Your task to perform on an android device: visit the assistant section in the google photos Image 0: 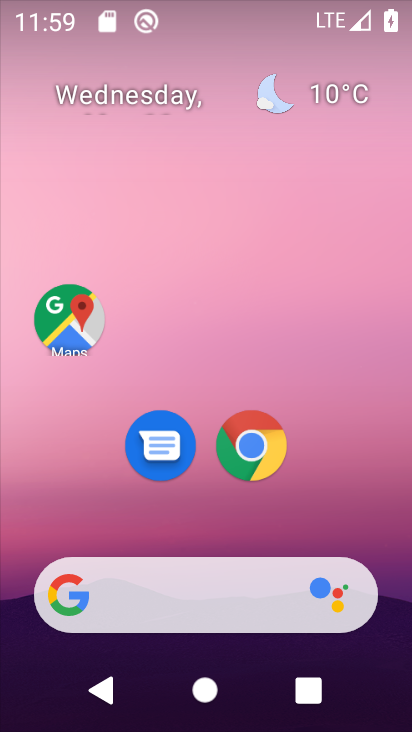
Step 0: drag from (264, 522) to (282, 54)
Your task to perform on an android device: visit the assistant section in the google photos Image 1: 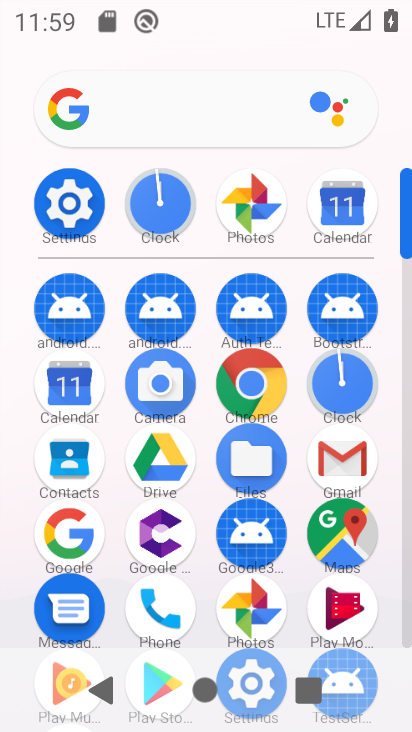
Step 1: click (240, 622)
Your task to perform on an android device: visit the assistant section in the google photos Image 2: 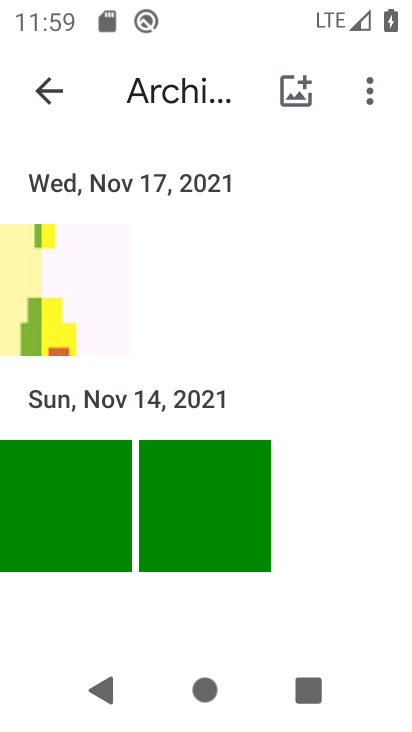
Step 2: click (35, 91)
Your task to perform on an android device: visit the assistant section in the google photos Image 3: 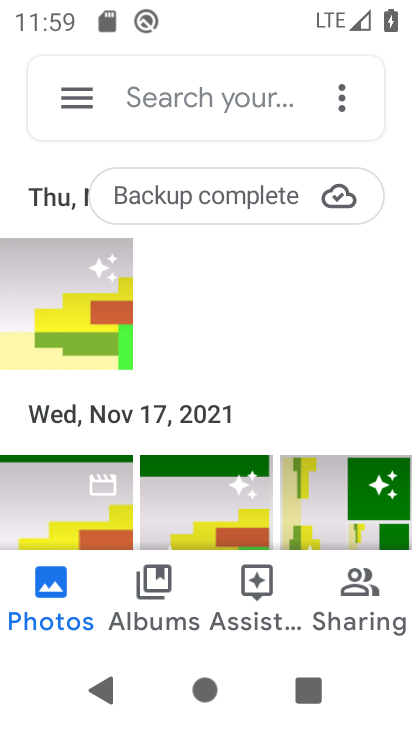
Step 3: click (269, 608)
Your task to perform on an android device: visit the assistant section in the google photos Image 4: 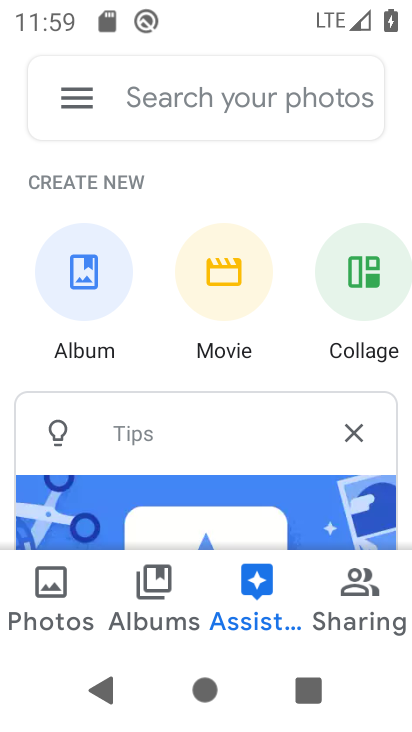
Step 4: task complete